Your task to perform on an android device: uninstall "Google Calendar" Image 0: 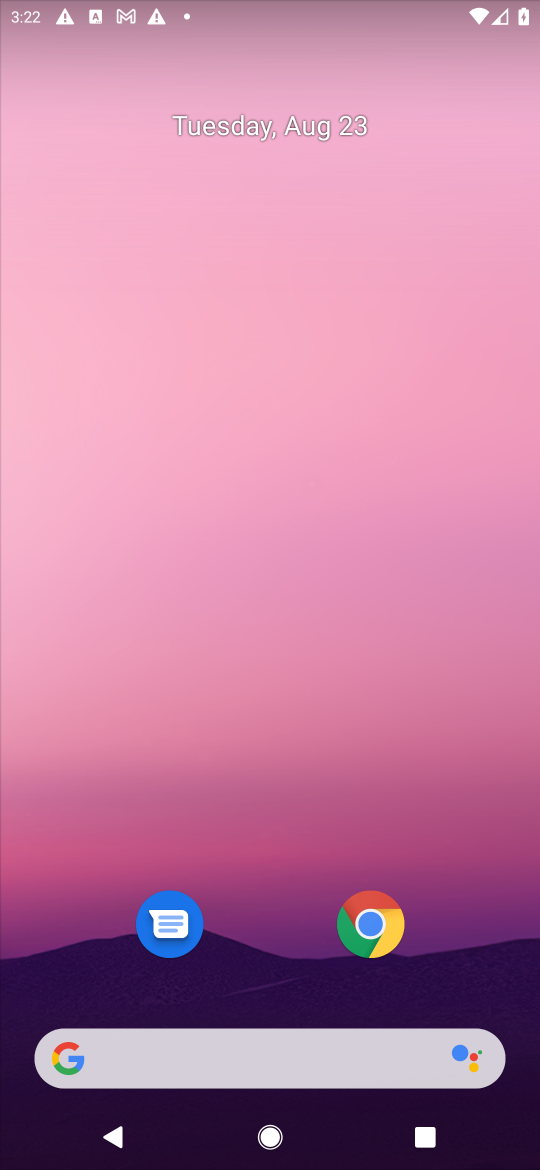
Step 0: press home button
Your task to perform on an android device: uninstall "Google Calendar" Image 1: 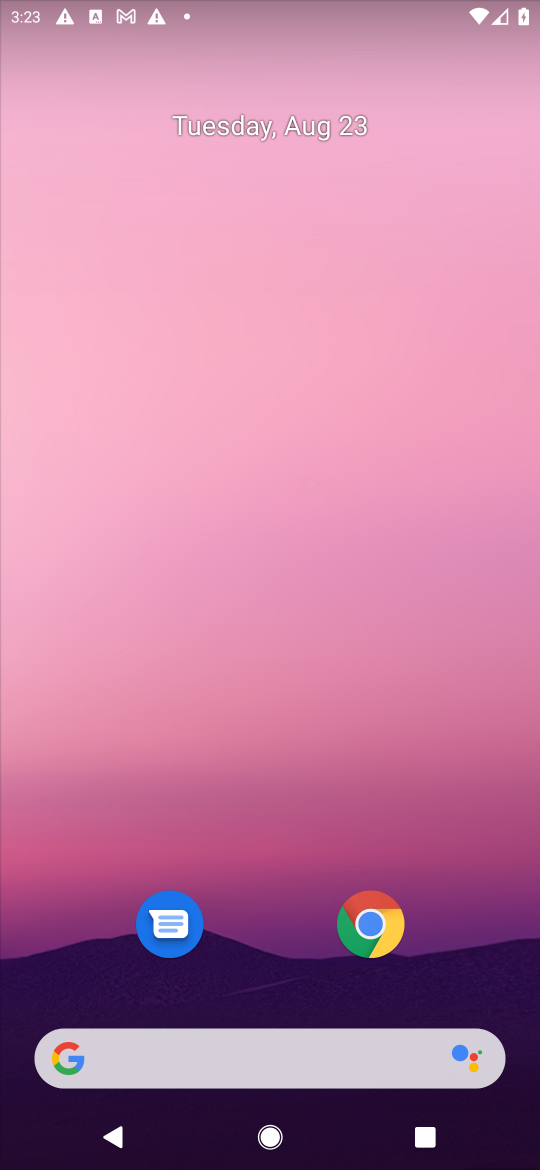
Step 1: drag from (453, 941) to (459, 177)
Your task to perform on an android device: uninstall "Google Calendar" Image 2: 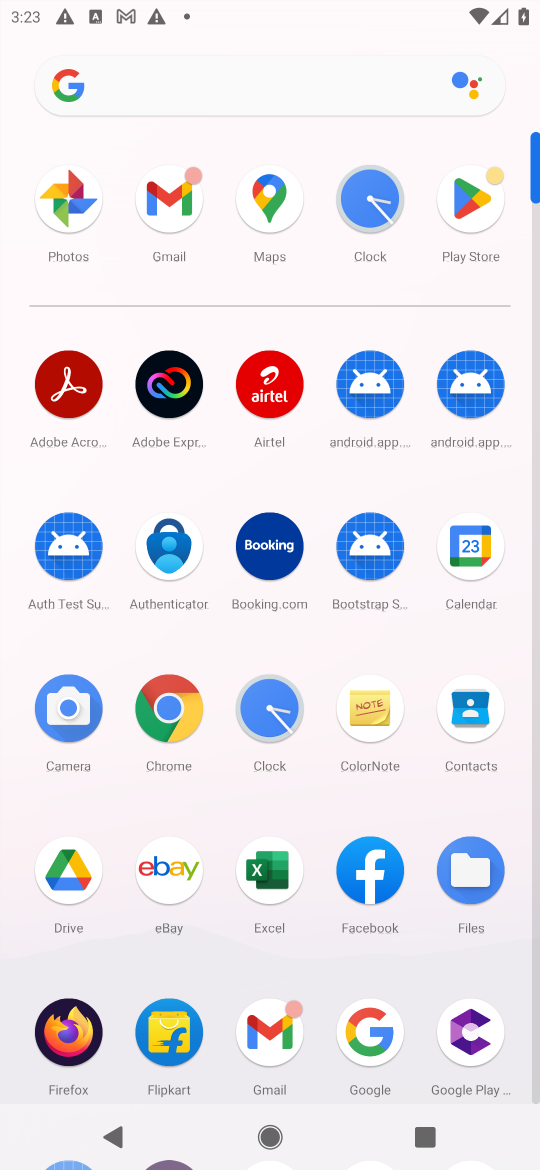
Step 2: click (466, 198)
Your task to perform on an android device: uninstall "Google Calendar" Image 3: 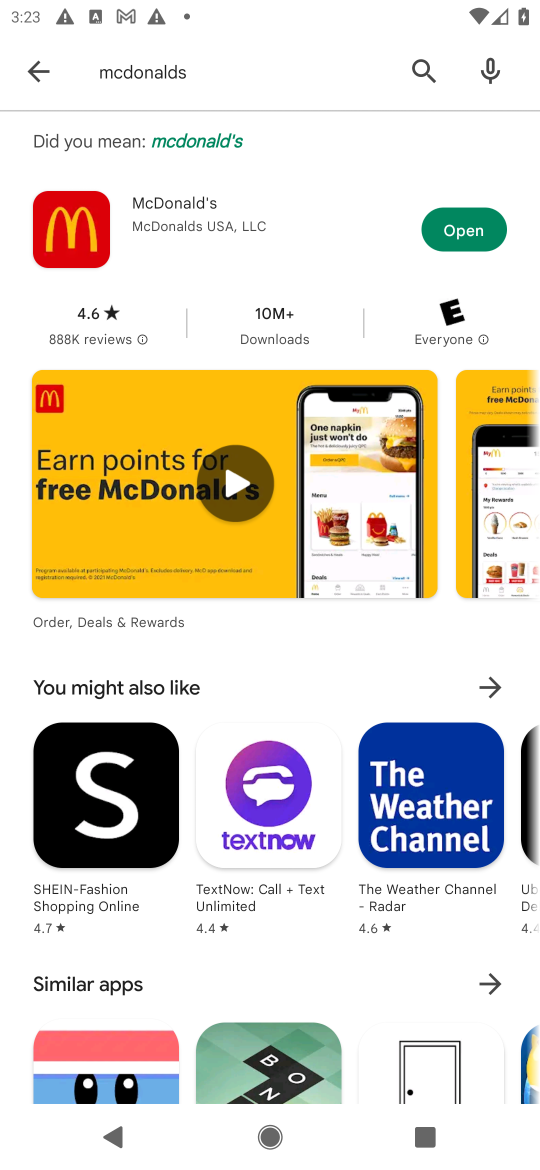
Step 3: press back button
Your task to perform on an android device: uninstall "Google Calendar" Image 4: 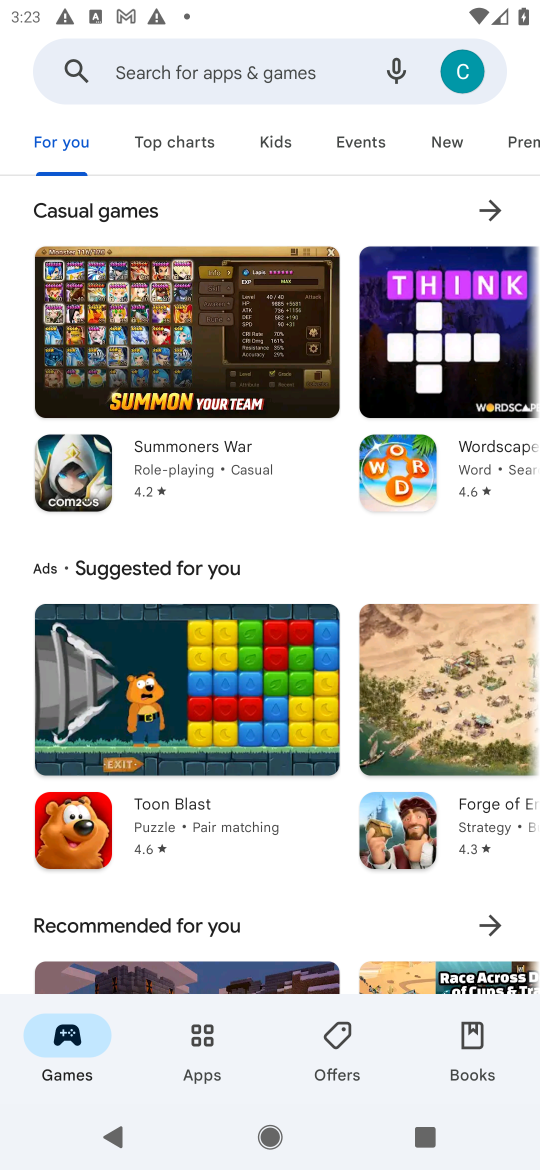
Step 4: click (251, 82)
Your task to perform on an android device: uninstall "Google Calendar" Image 5: 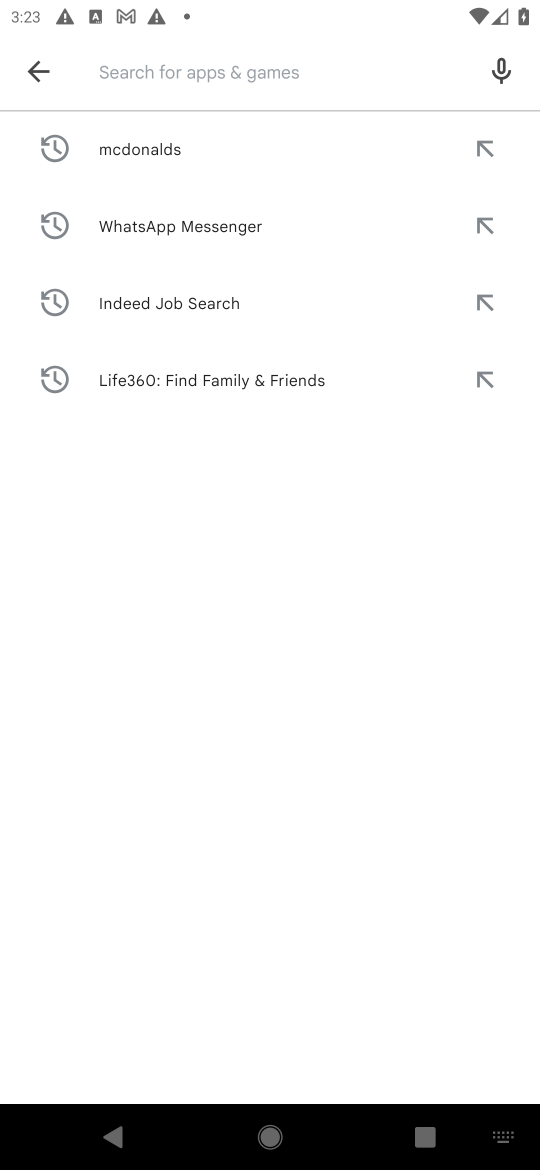
Step 5: type "Google Calendar"
Your task to perform on an android device: uninstall "Google Calendar" Image 6: 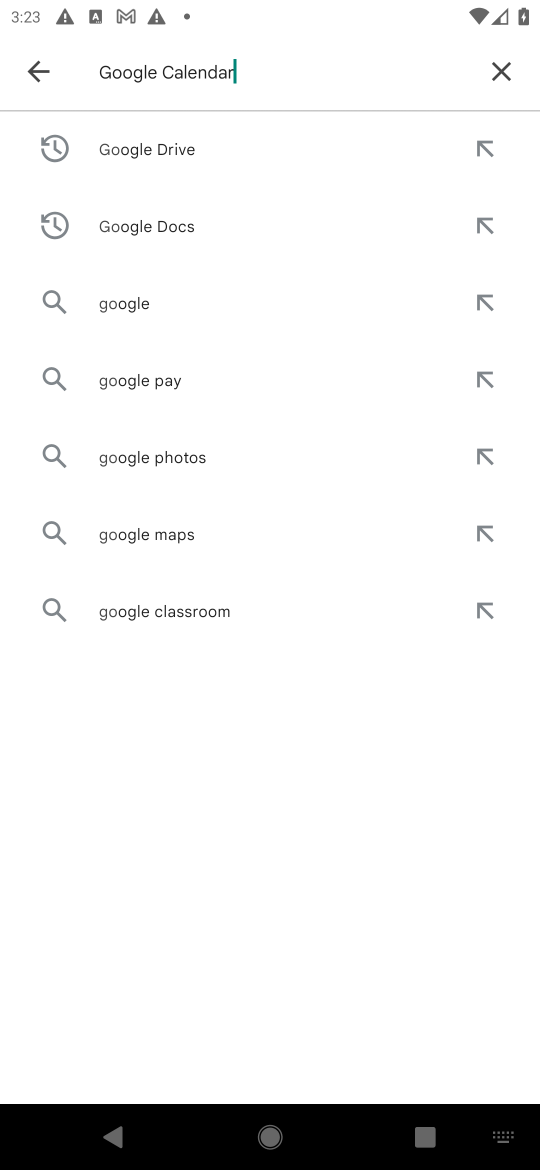
Step 6: press enter
Your task to perform on an android device: uninstall "Google Calendar" Image 7: 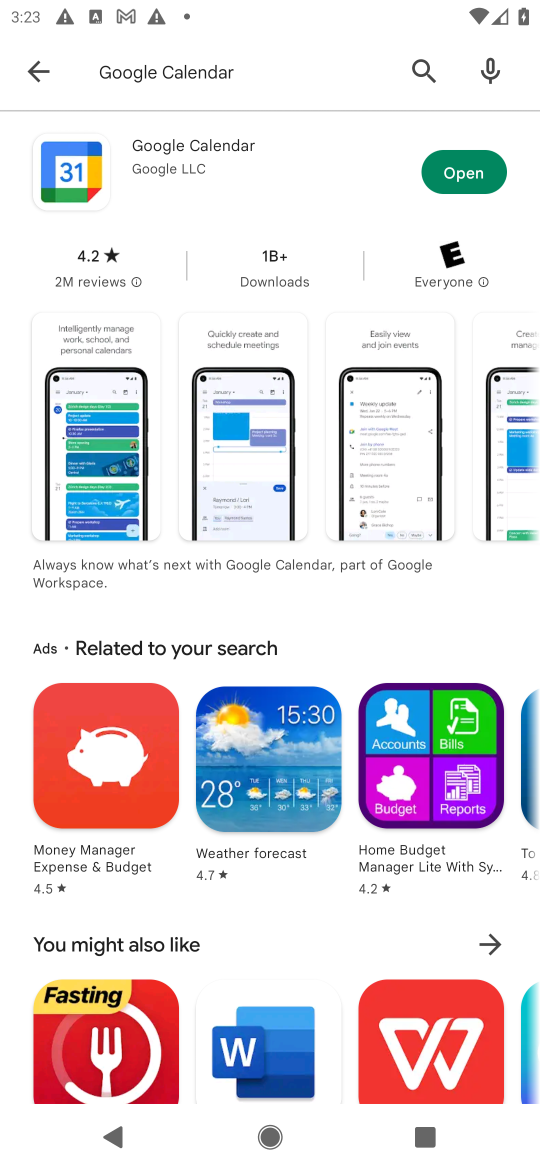
Step 7: task complete